Your task to perform on an android device: turn off location history Image 0: 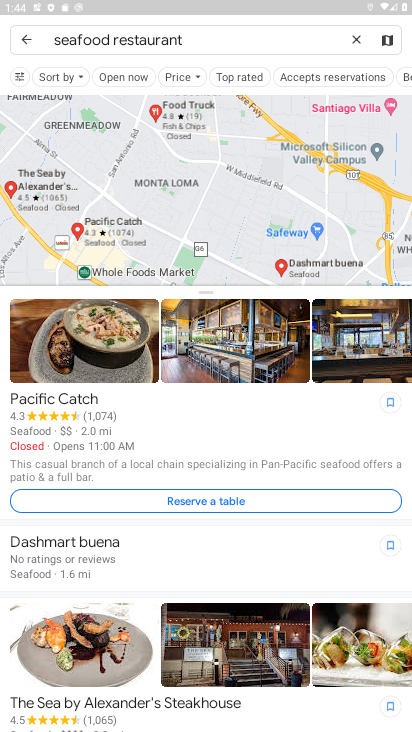
Step 0: press home button
Your task to perform on an android device: turn off location history Image 1: 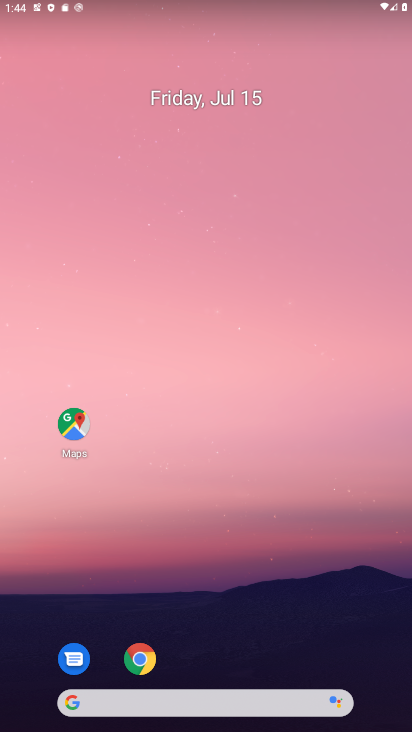
Step 1: drag from (246, 671) to (246, 121)
Your task to perform on an android device: turn off location history Image 2: 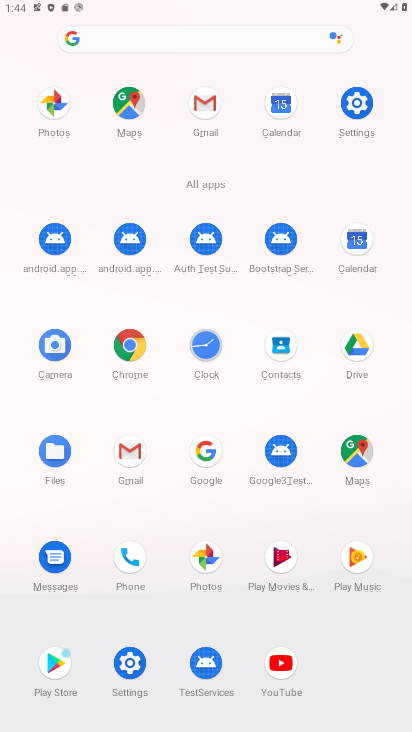
Step 2: click (353, 99)
Your task to perform on an android device: turn off location history Image 3: 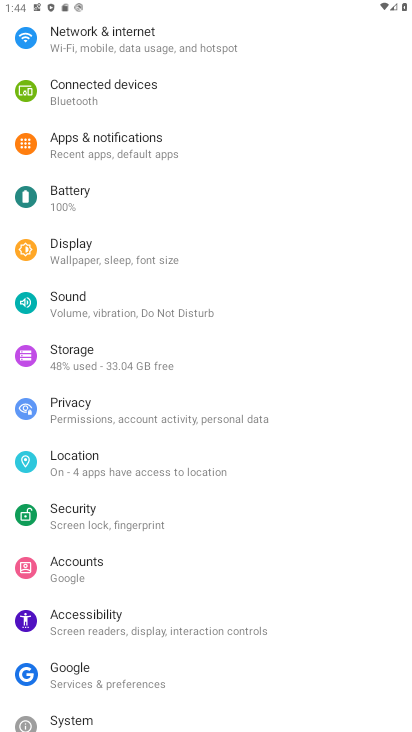
Step 3: click (123, 455)
Your task to perform on an android device: turn off location history Image 4: 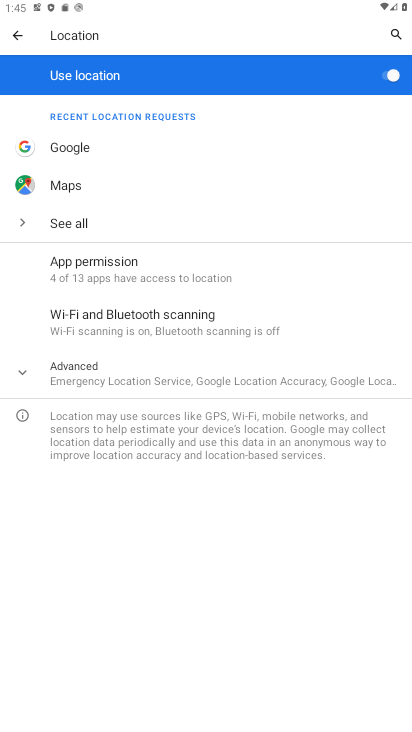
Step 4: click (146, 382)
Your task to perform on an android device: turn off location history Image 5: 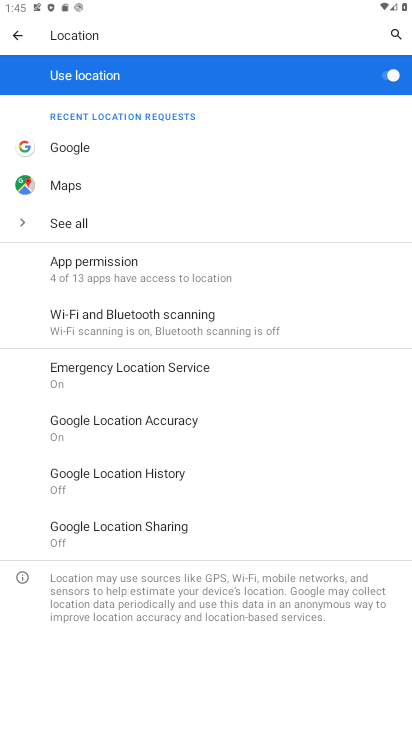
Step 5: click (153, 474)
Your task to perform on an android device: turn off location history Image 6: 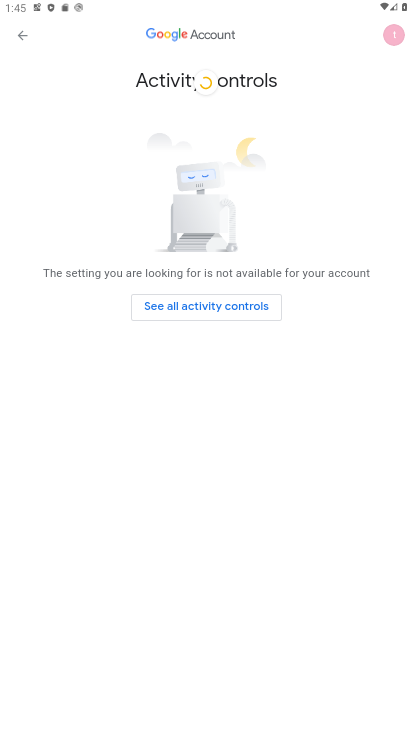
Step 6: task complete